Your task to perform on an android device: Open Maps and search for coffee Image 0: 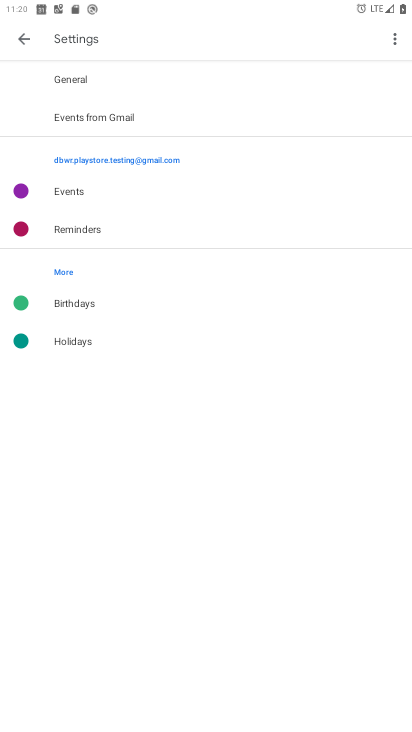
Step 0: press home button
Your task to perform on an android device: Open Maps and search for coffee Image 1: 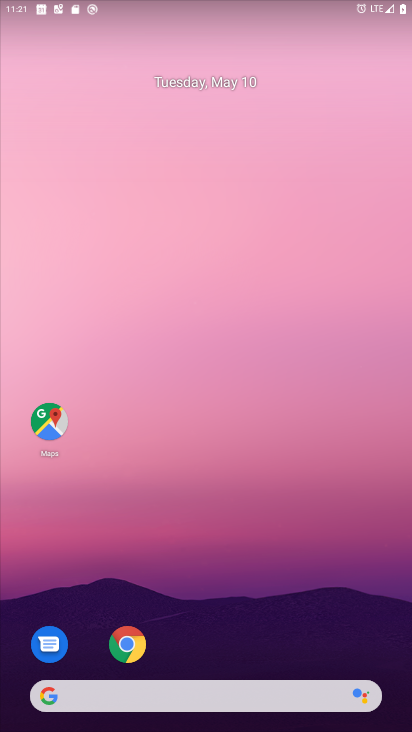
Step 1: drag from (273, 641) to (287, 247)
Your task to perform on an android device: Open Maps and search for coffee Image 2: 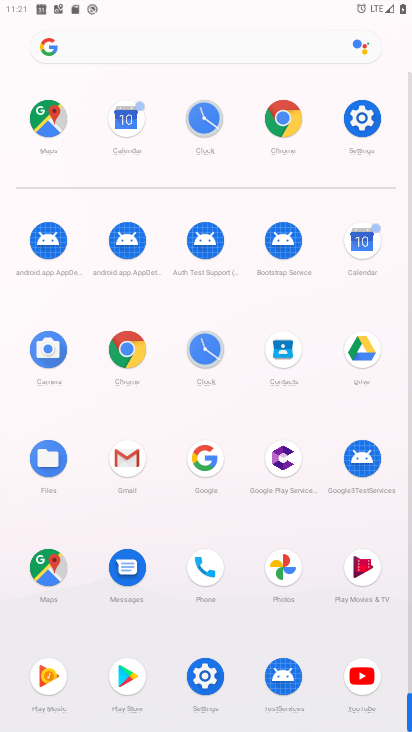
Step 2: drag from (229, 505) to (218, 318)
Your task to perform on an android device: Open Maps and search for coffee Image 3: 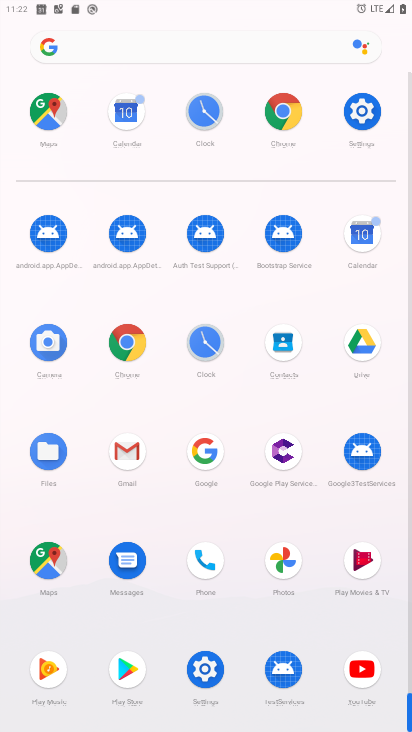
Step 3: click (50, 559)
Your task to perform on an android device: Open Maps and search for coffee Image 4: 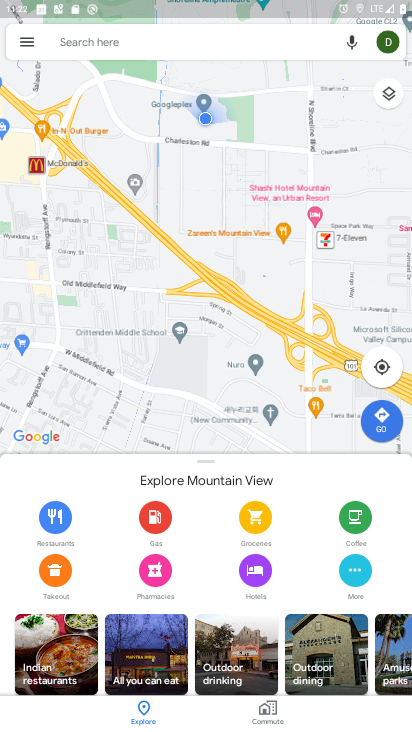
Step 4: click (228, 36)
Your task to perform on an android device: Open Maps and search for coffee Image 5: 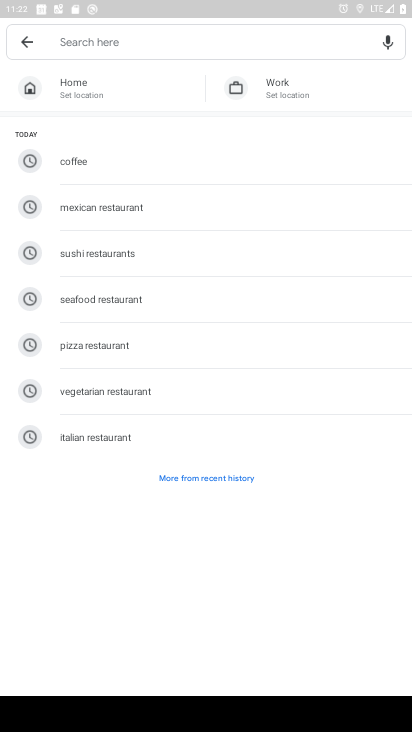
Step 5: click (119, 167)
Your task to perform on an android device: Open Maps and search for coffee Image 6: 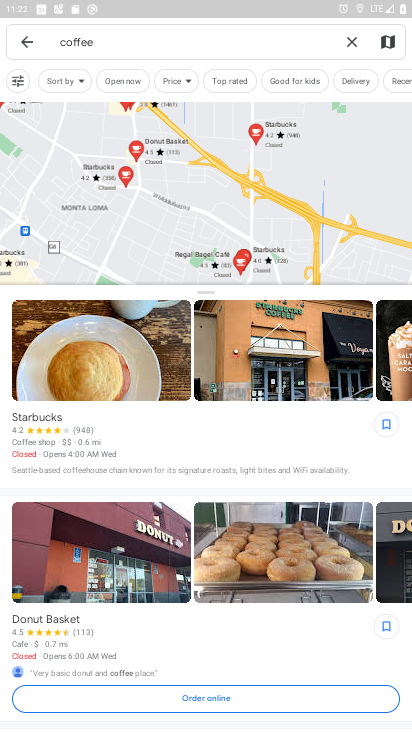
Step 6: task complete